Your task to perform on an android device: manage bookmarks in the chrome app Image 0: 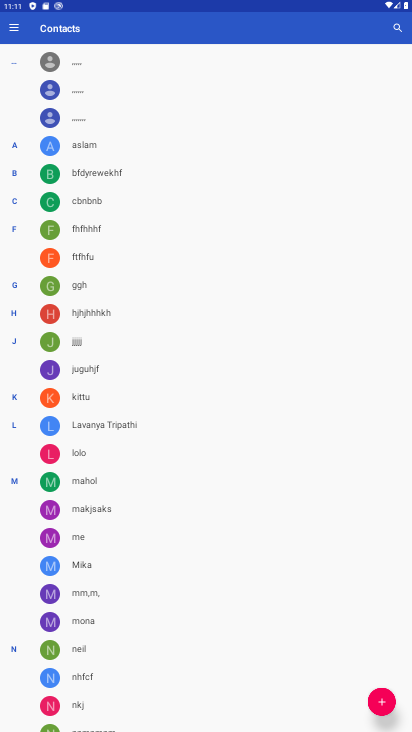
Step 0: press home button
Your task to perform on an android device: manage bookmarks in the chrome app Image 1: 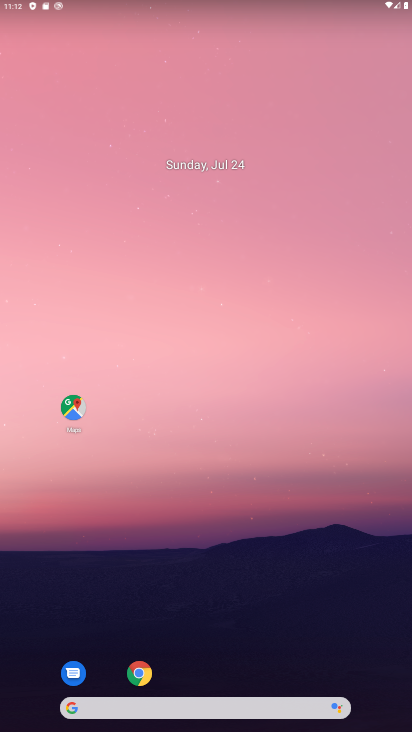
Step 1: drag from (305, 699) to (246, 49)
Your task to perform on an android device: manage bookmarks in the chrome app Image 2: 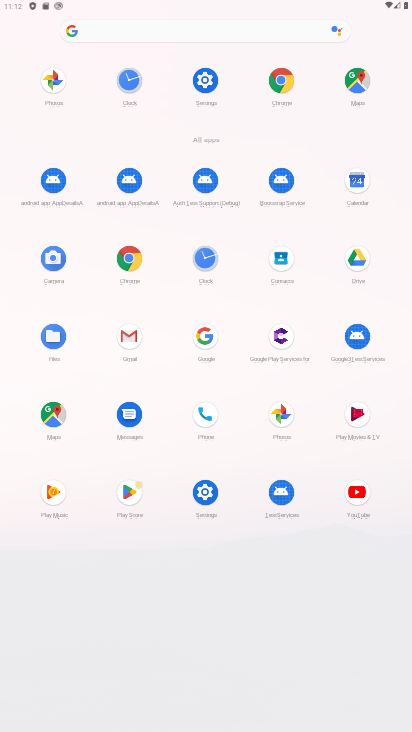
Step 2: click (129, 263)
Your task to perform on an android device: manage bookmarks in the chrome app Image 3: 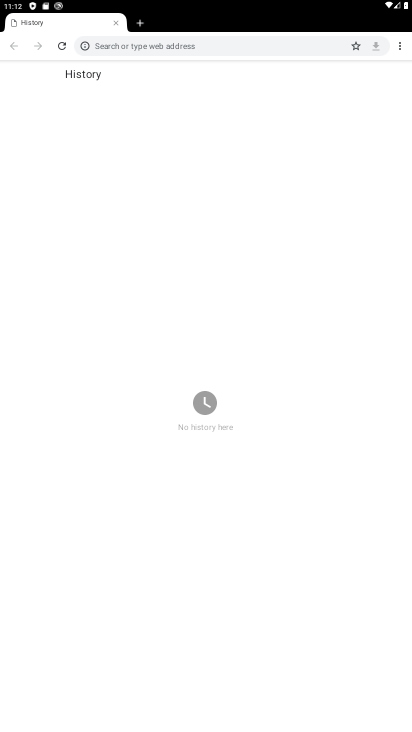
Step 3: drag from (402, 44) to (333, 119)
Your task to perform on an android device: manage bookmarks in the chrome app Image 4: 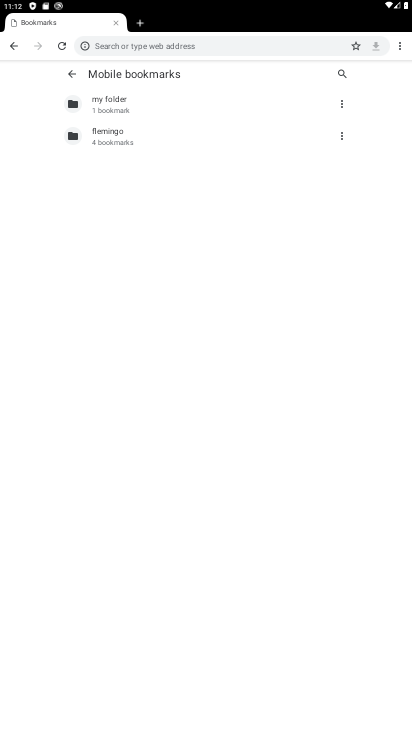
Step 4: click (103, 132)
Your task to perform on an android device: manage bookmarks in the chrome app Image 5: 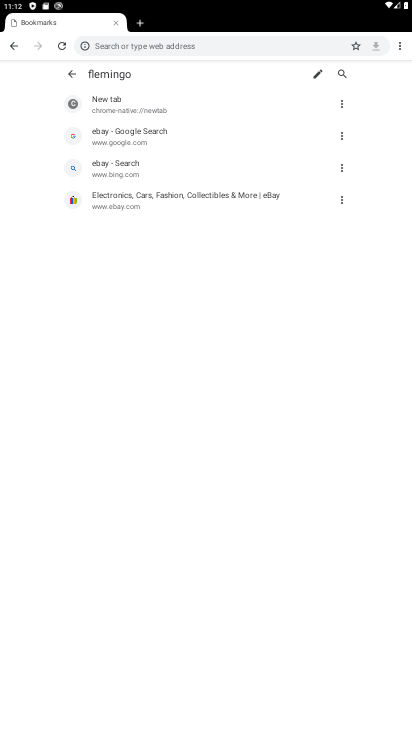
Step 5: click (341, 196)
Your task to perform on an android device: manage bookmarks in the chrome app Image 6: 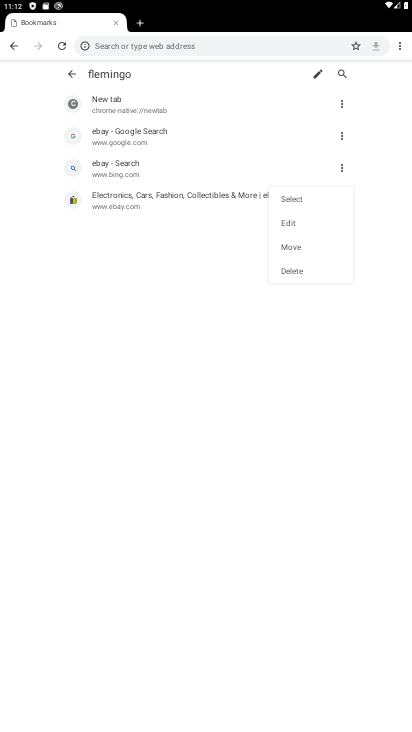
Step 6: click (294, 224)
Your task to perform on an android device: manage bookmarks in the chrome app Image 7: 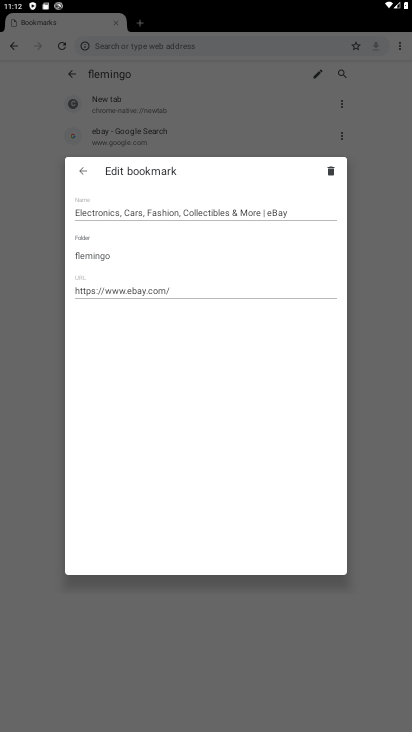
Step 7: click (294, 211)
Your task to perform on an android device: manage bookmarks in the chrome app Image 8: 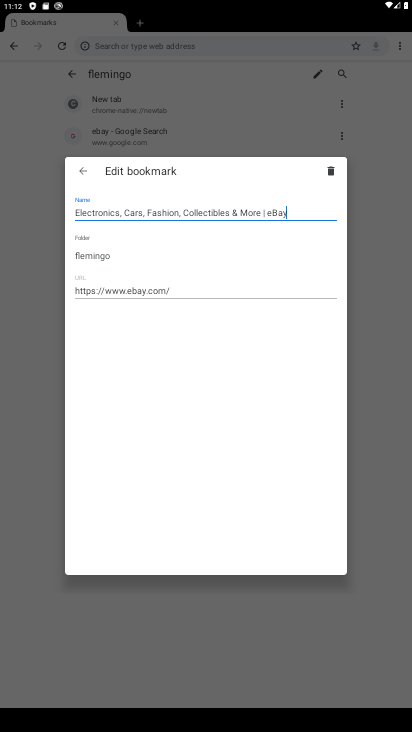
Step 8: type " po"
Your task to perform on an android device: manage bookmarks in the chrome app Image 9: 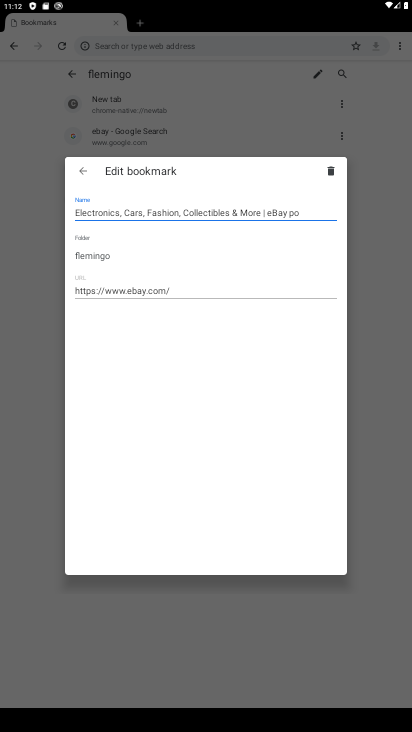
Step 9: click (80, 171)
Your task to perform on an android device: manage bookmarks in the chrome app Image 10: 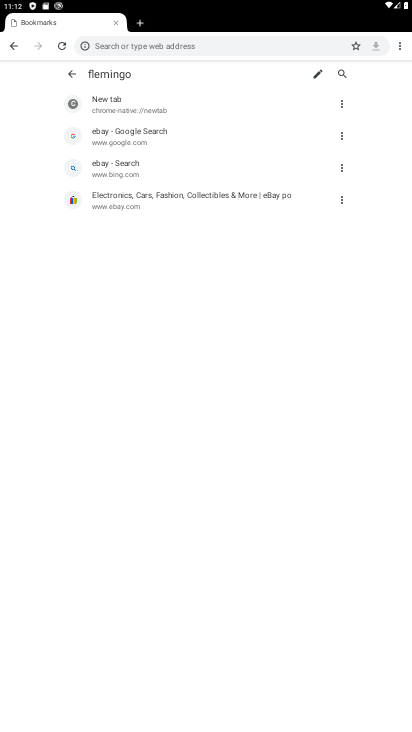
Step 10: task complete